Your task to perform on an android device: check android version Image 0: 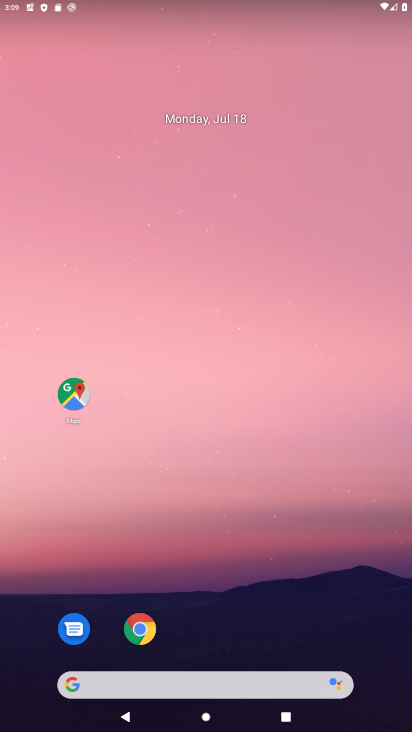
Step 0: drag from (242, 602) to (249, 101)
Your task to perform on an android device: check android version Image 1: 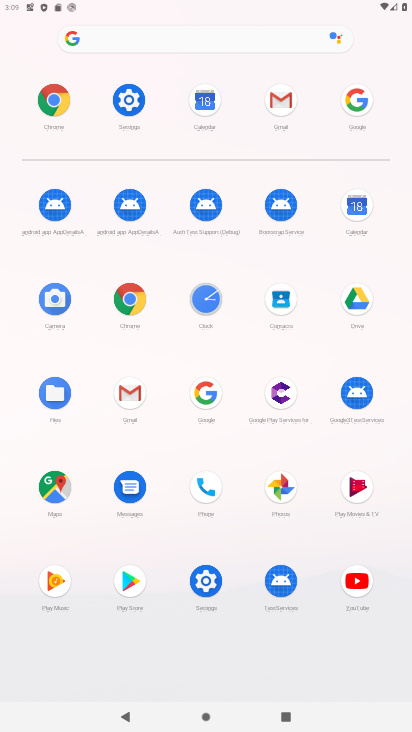
Step 1: click (132, 109)
Your task to perform on an android device: check android version Image 2: 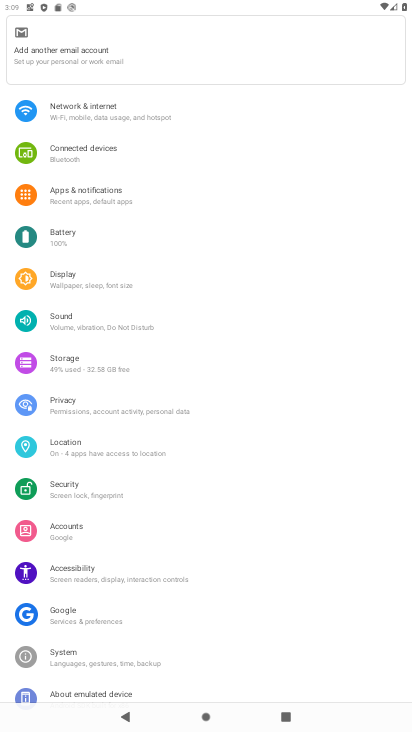
Step 2: drag from (184, 656) to (217, 136)
Your task to perform on an android device: check android version Image 3: 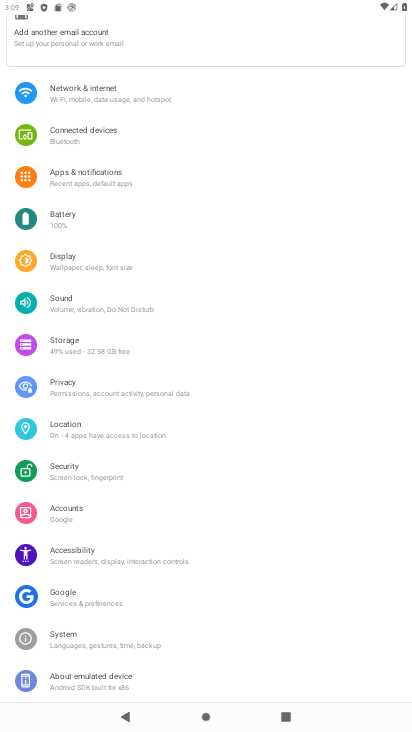
Step 3: click (109, 680)
Your task to perform on an android device: check android version Image 4: 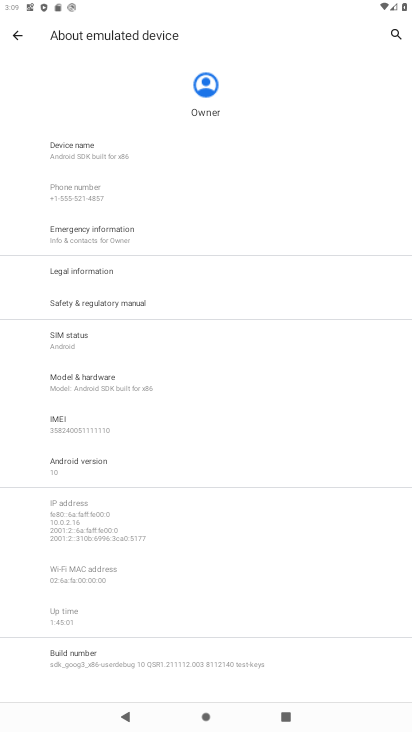
Step 4: click (137, 466)
Your task to perform on an android device: check android version Image 5: 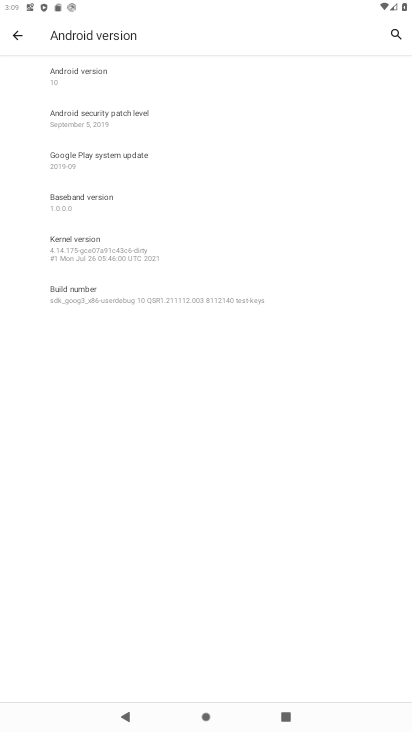
Step 5: click (124, 79)
Your task to perform on an android device: check android version Image 6: 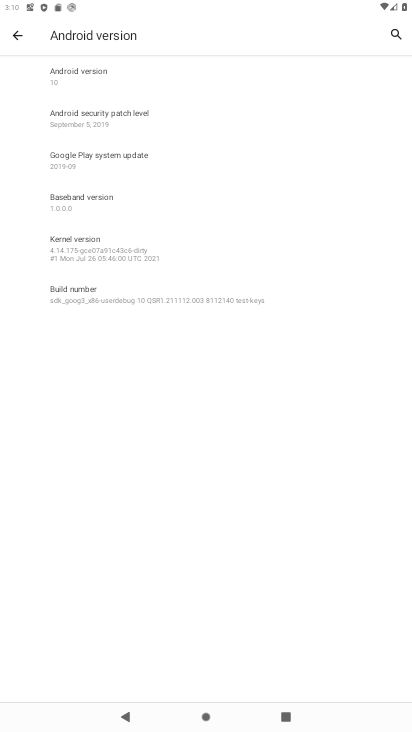
Step 6: task complete